Your task to perform on an android device: turn on the 24-hour format for clock Image 0: 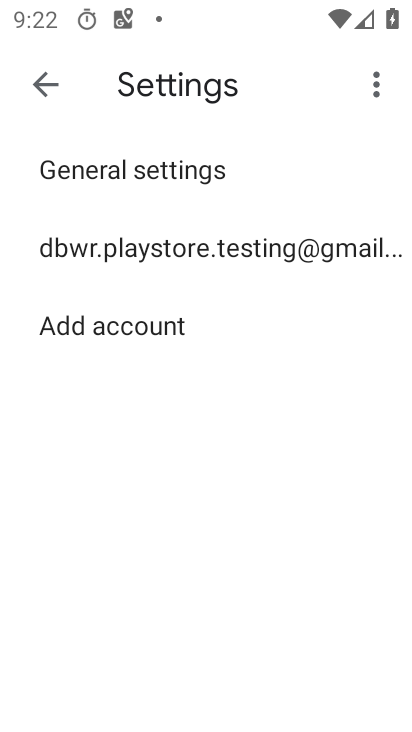
Step 0: press home button
Your task to perform on an android device: turn on the 24-hour format for clock Image 1: 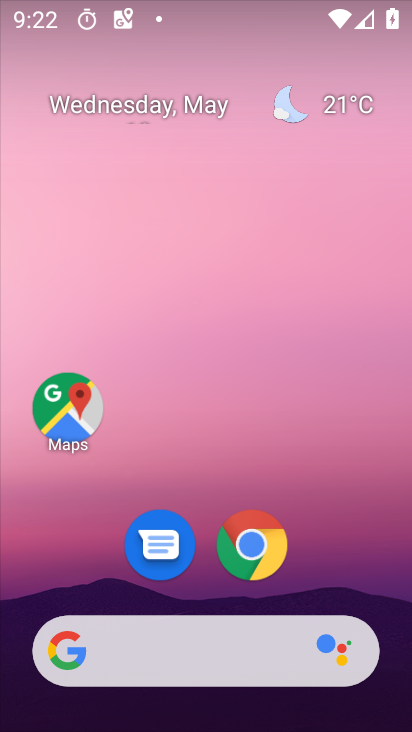
Step 1: drag from (327, 583) to (224, 19)
Your task to perform on an android device: turn on the 24-hour format for clock Image 2: 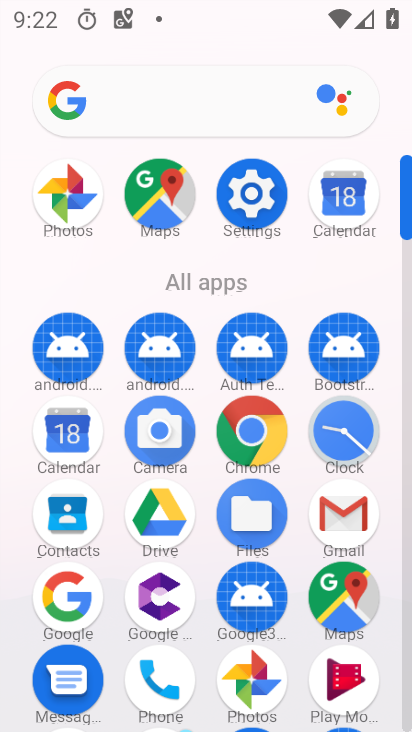
Step 2: click (349, 436)
Your task to perform on an android device: turn on the 24-hour format for clock Image 3: 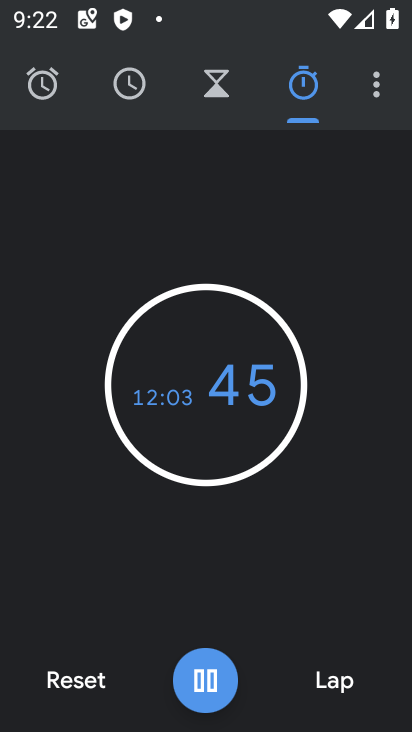
Step 3: click (368, 79)
Your task to perform on an android device: turn on the 24-hour format for clock Image 4: 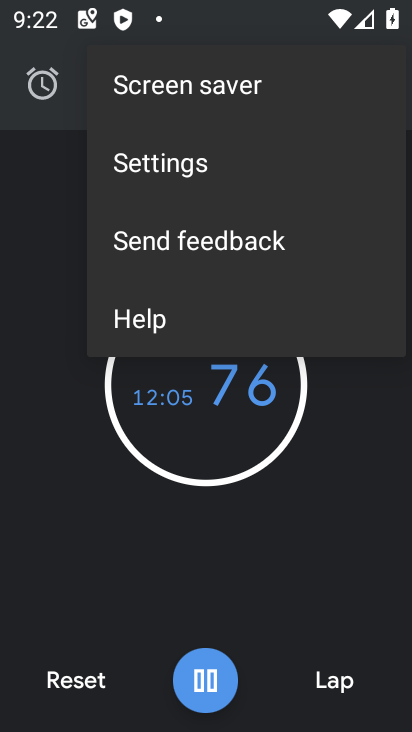
Step 4: click (134, 167)
Your task to perform on an android device: turn on the 24-hour format for clock Image 5: 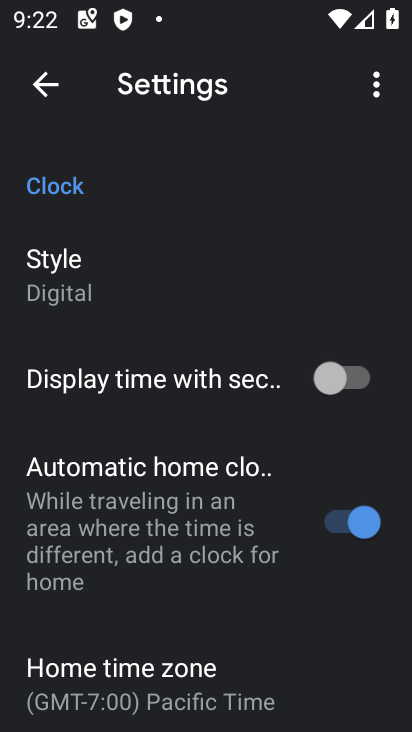
Step 5: drag from (158, 593) to (156, 304)
Your task to perform on an android device: turn on the 24-hour format for clock Image 6: 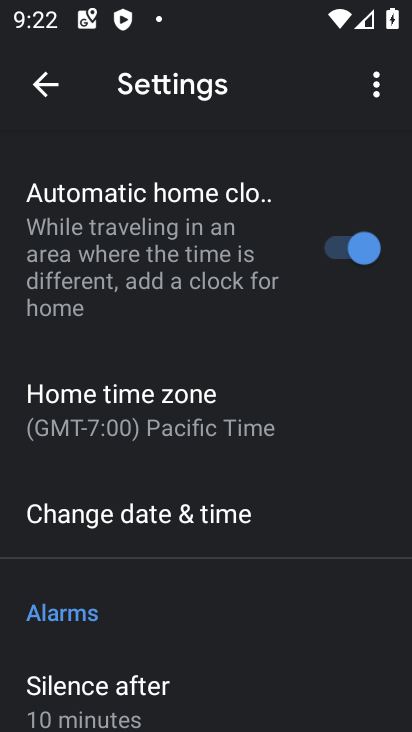
Step 6: click (229, 501)
Your task to perform on an android device: turn on the 24-hour format for clock Image 7: 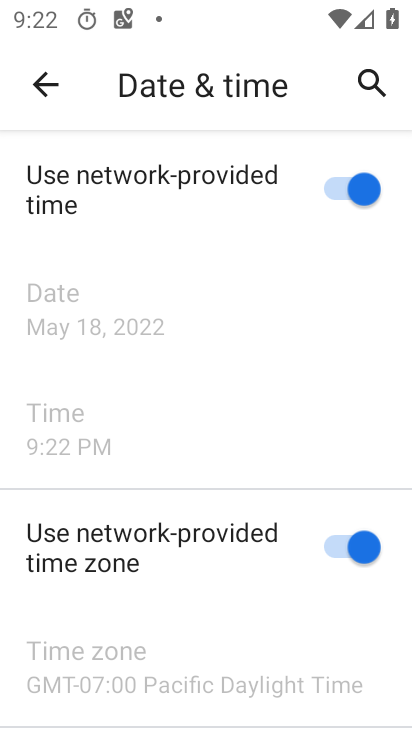
Step 7: drag from (92, 685) to (176, 234)
Your task to perform on an android device: turn on the 24-hour format for clock Image 8: 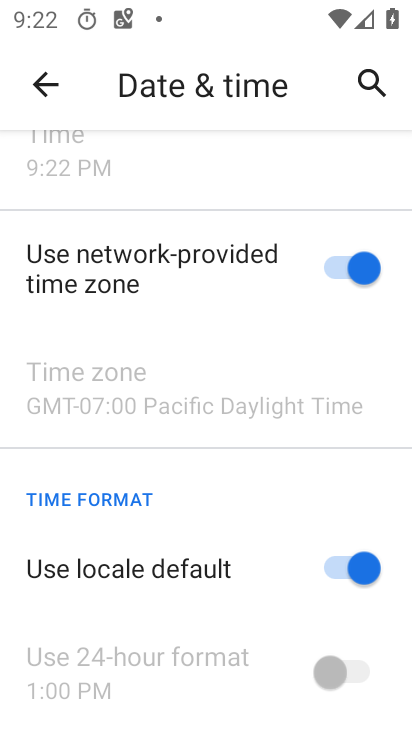
Step 8: click (350, 570)
Your task to perform on an android device: turn on the 24-hour format for clock Image 9: 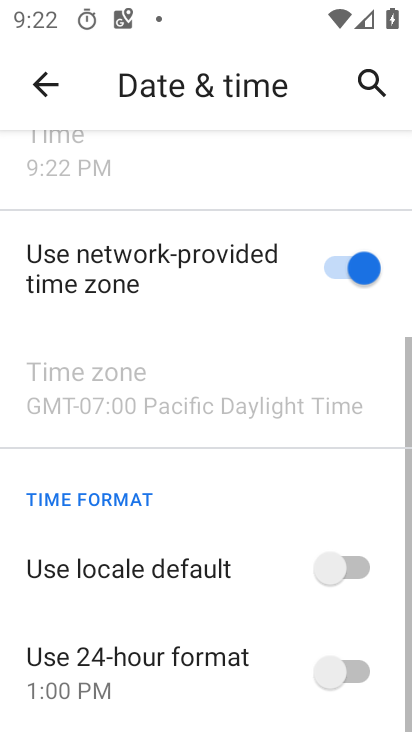
Step 9: click (349, 673)
Your task to perform on an android device: turn on the 24-hour format for clock Image 10: 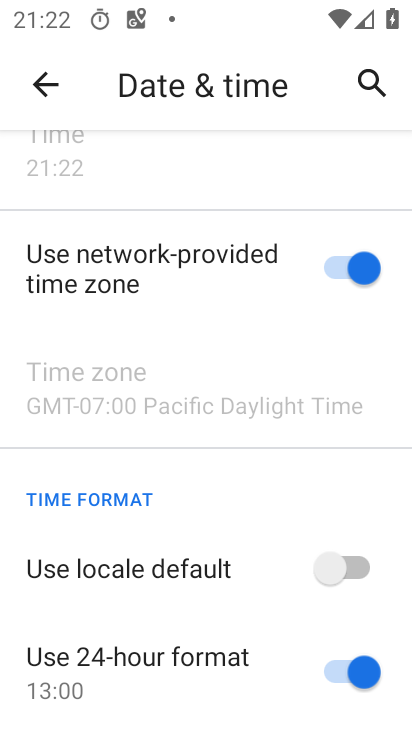
Step 10: task complete